Your task to perform on an android device: Open the calendar and show me this week's events? Image 0: 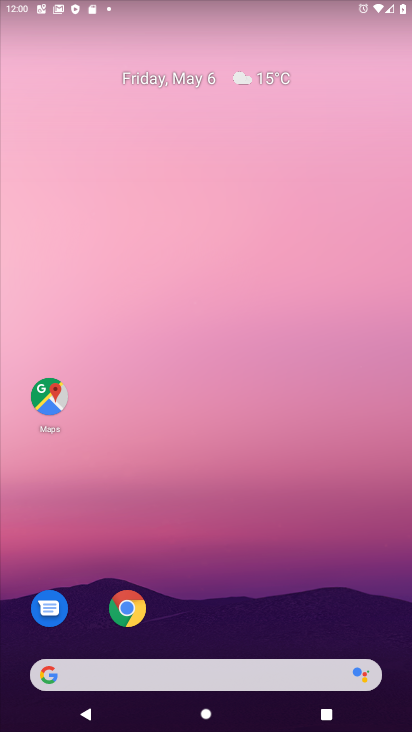
Step 0: drag from (272, 622) to (264, 135)
Your task to perform on an android device: Open the calendar and show me this week's events? Image 1: 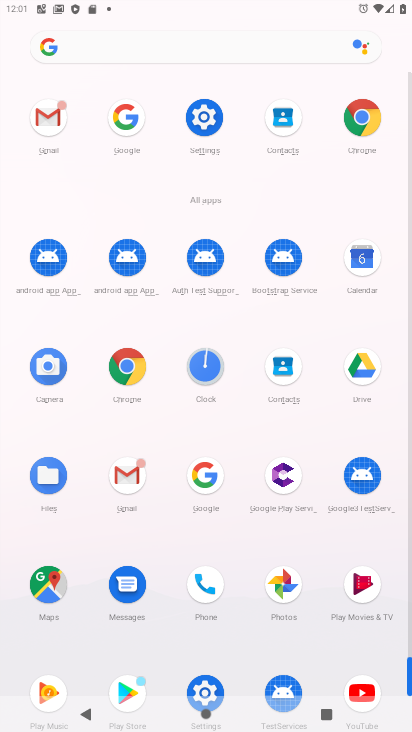
Step 1: click (359, 268)
Your task to perform on an android device: Open the calendar and show me this week's events? Image 2: 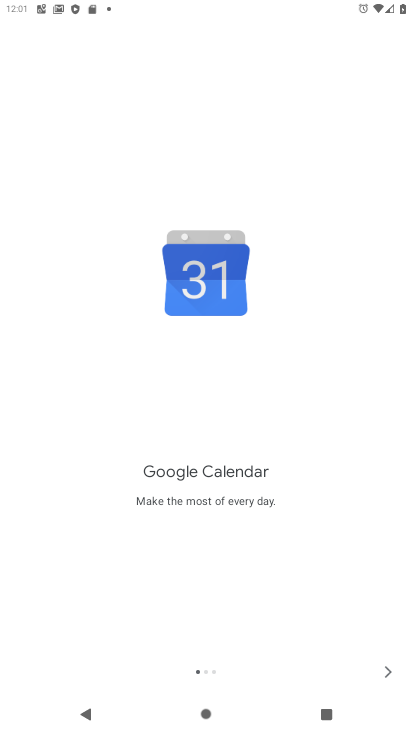
Step 2: click (383, 671)
Your task to perform on an android device: Open the calendar and show me this week's events? Image 3: 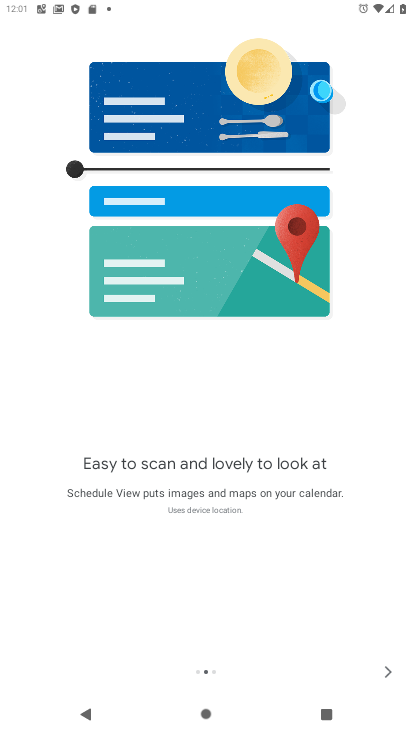
Step 3: click (383, 671)
Your task to perform on an android device: Open the calendar and show me this week's events? Image 4: 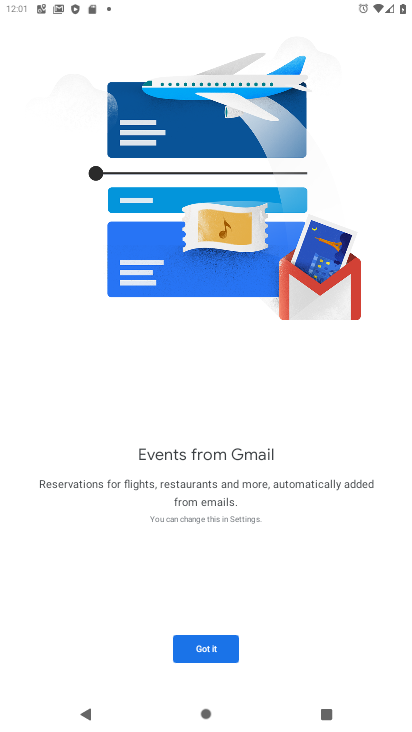
Step 4: click (216, 654)
Your task to perform on an android device: Open the calendar and show me this week's events? Image 5: 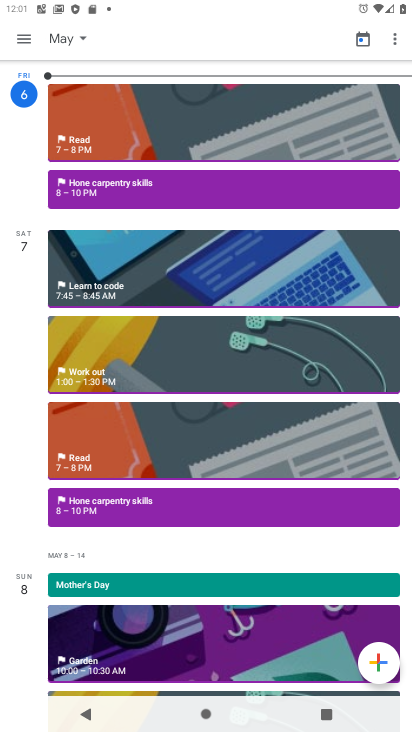
Step 5: click (18, 39)
Your task to perform on an android device: Open the calendar and show me this week's events? Image 6: 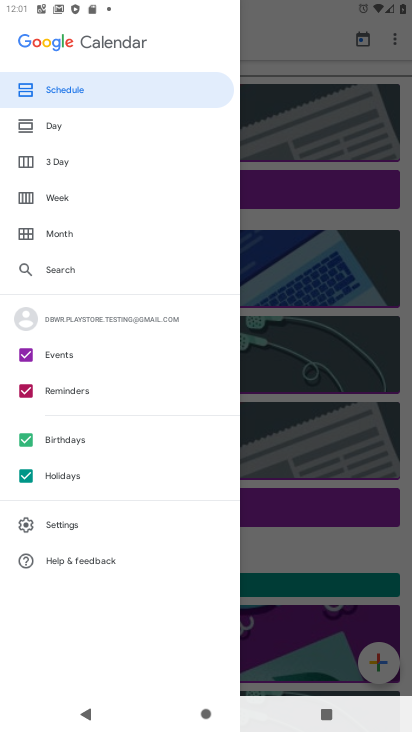
Step 6: click (307, 43)
Your task to perform on an android device: Open the calendar and show me this week's events? Image 7: 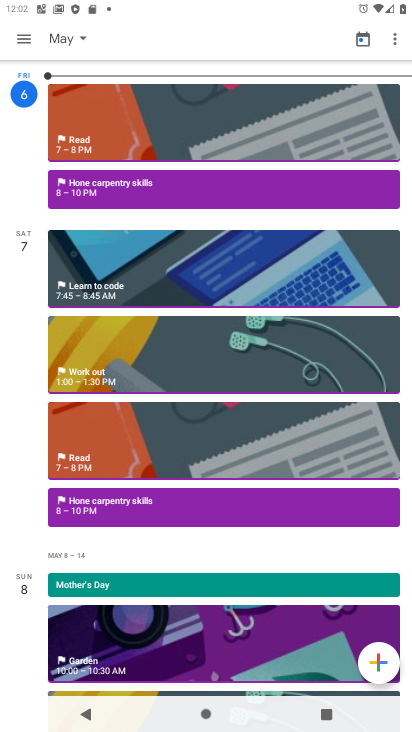
Step 7: click (61, 41)
Your task to perform on an android device: Open the calendar and show me this week's events? Image 8: 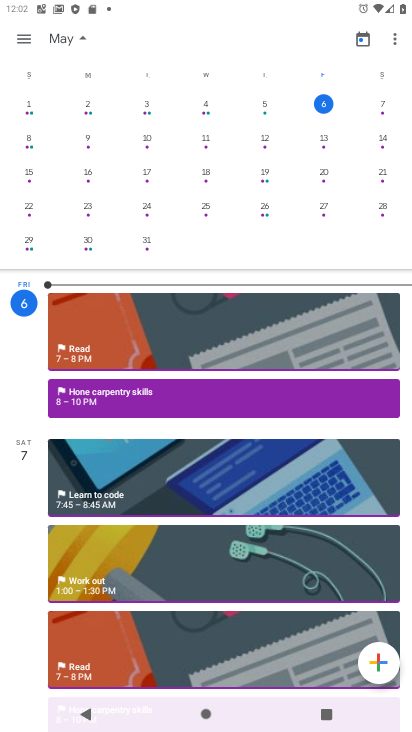
Step 8: click (385, 102)
Your task to perform on an android device: Open the calendar and show me this week's events? Image 9: 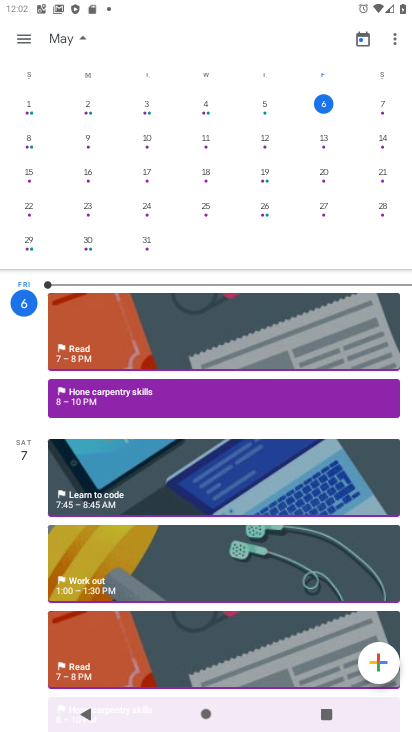
Step 9: click (380, 112)
Your task to perform on an android device: Open the calendar and show me this week's events? Image 10: 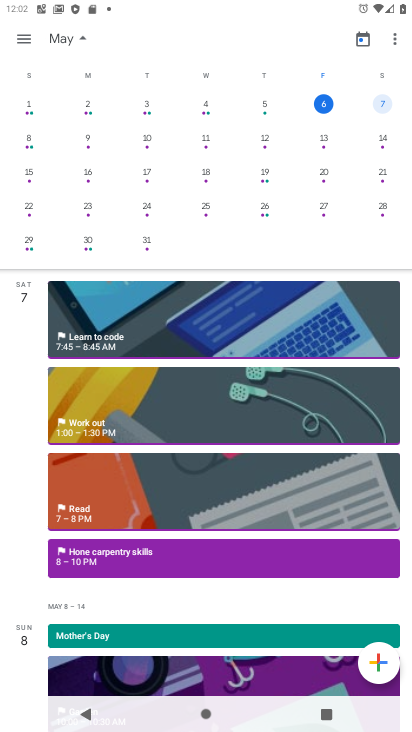
Step 10: task complete